Your task to perform on an android device: turn off notifications settings in the gmail app Image 0: 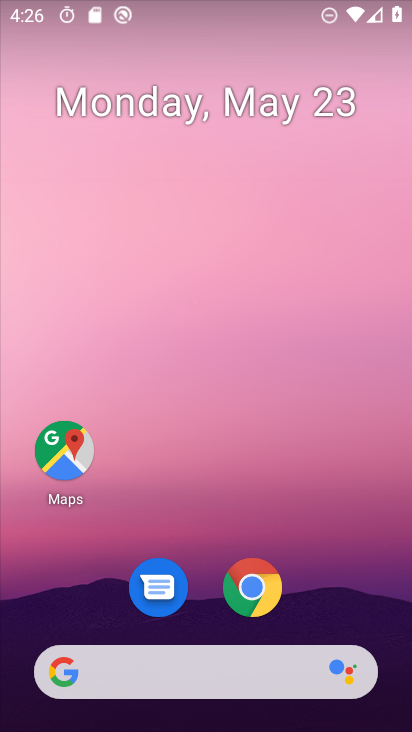
Step 0: drag from (204, 607) to (242, 24)
Your task to perform on an android device: turn off notifications settings in the gmail app Image 1: 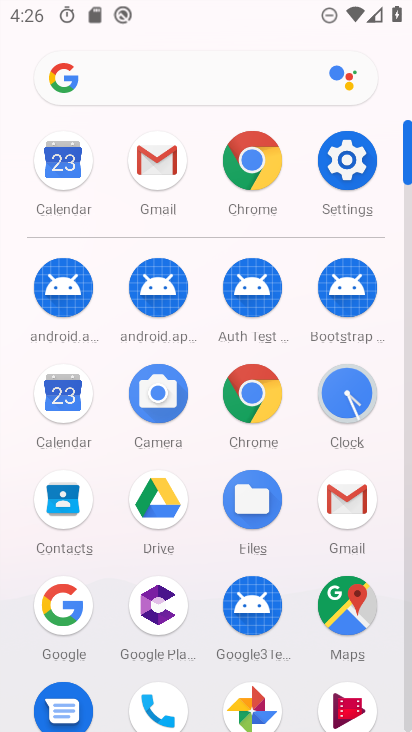
Step 1: click (352, 504)
Your task to perform on an android device: turn off notifications settings in the gmail app Image 2: 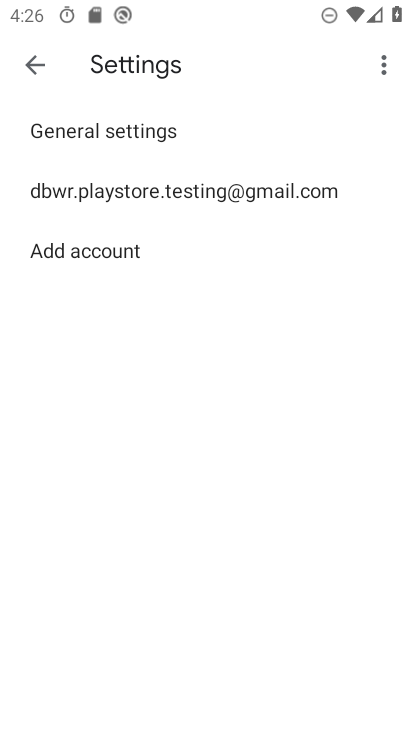
Step 2: click (145, 137)
Your task to perform on an android device: turn off notifications settings in the gmail app Image 3: 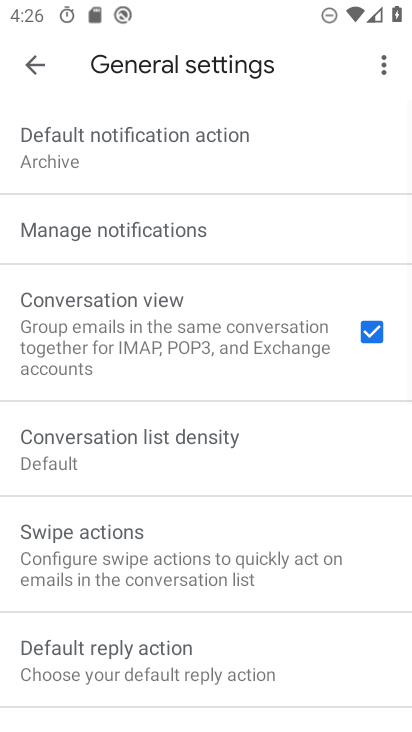
Step 3: click (123, 227)
Your task to perform on an android device: turn off notifications settings in the gmail app Image 4: 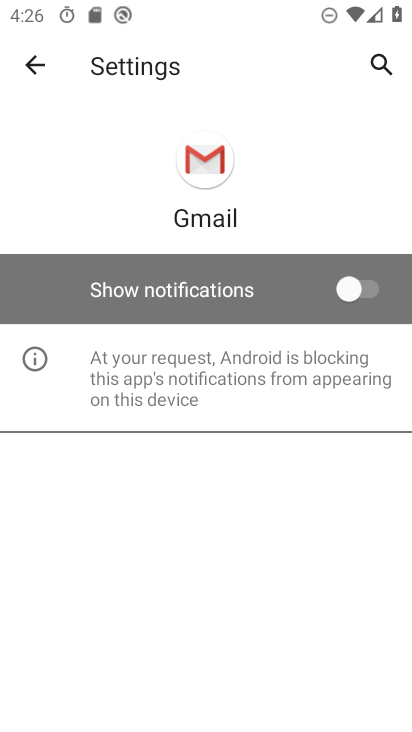
Step 4: task complete